Your task to perform on an android device: Go to Android settings Image 0: 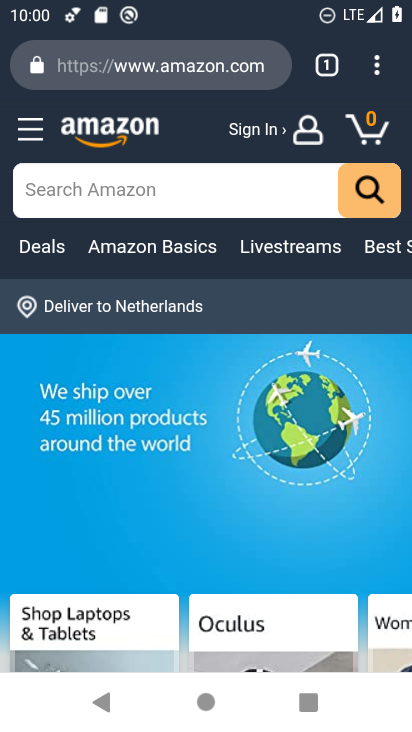
Step 0: press home button
Your task to perform on an android device: Go to Android settings Image 1: 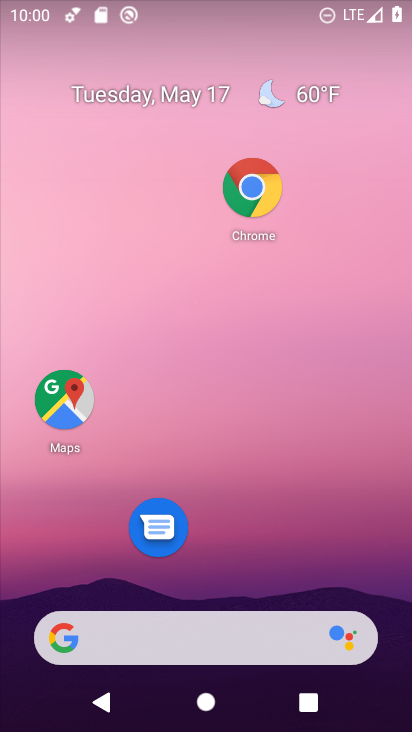
Step 1: drag from (292, 495) to (305, 31)
Your task to perform on an android device: Go to Android settings Image 2: 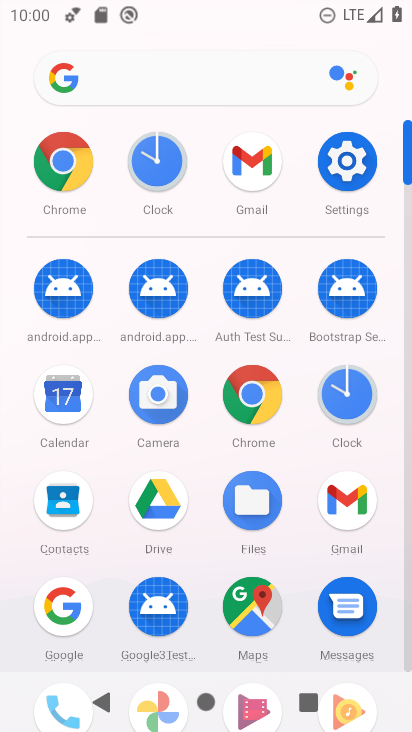
Step 2: click (340, 173)
Your task to perform on an android device: Go to Android settings Image 3: 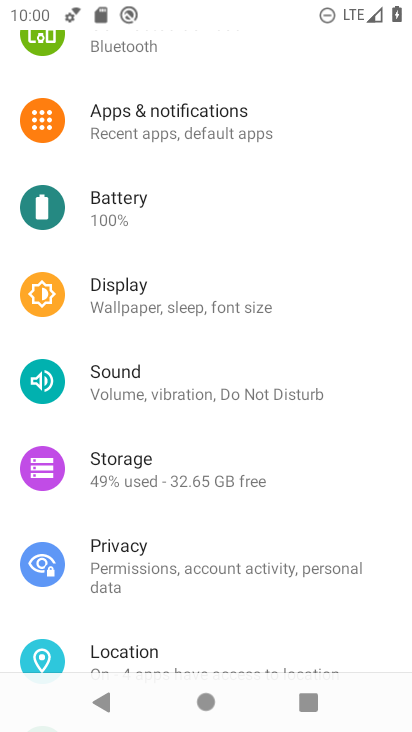
Step 3: task complete